Your task to perform on an android device: Open the map Image 0: 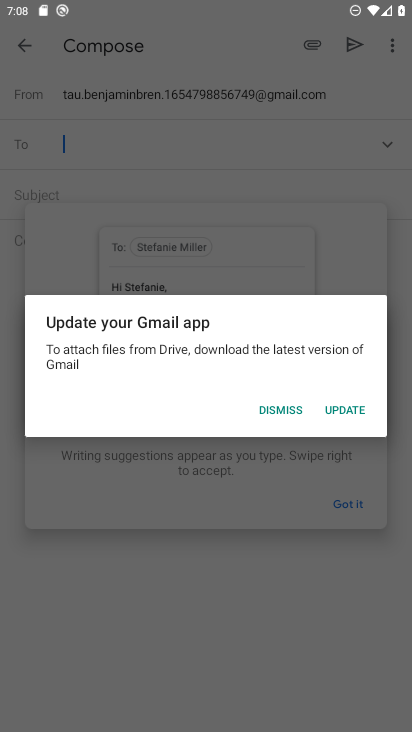
Step 0: press home button
Your task to perform on an android device: Open the map Image 1: 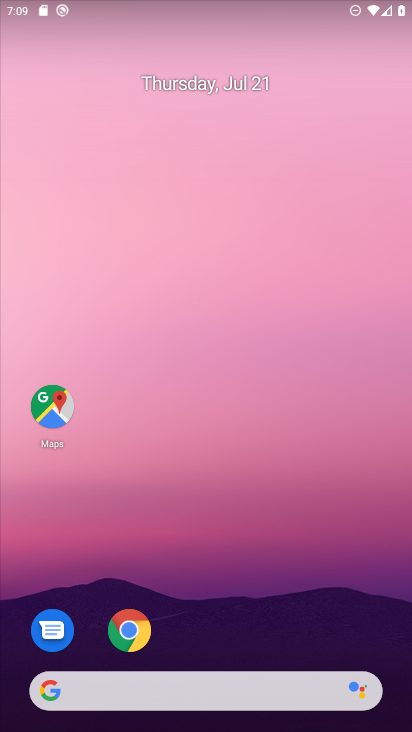
Step 1: click (49, 411)
Your task to perform on an android device: Open the map Image 2: 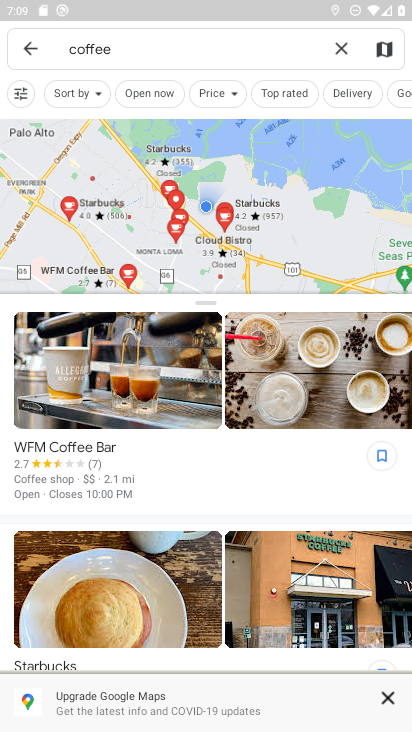
Step 2: task complete